Your task to perform on an android device: empty trash in google photos Image 0: 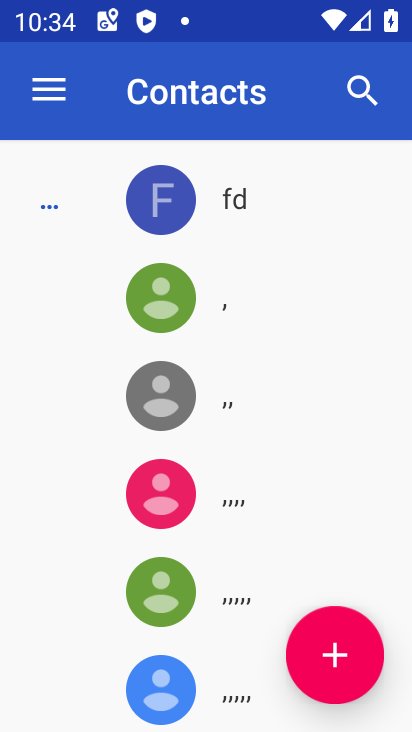
Step 0: press home button
Your task to perform on an android device: empty trash in google photos Image 1: 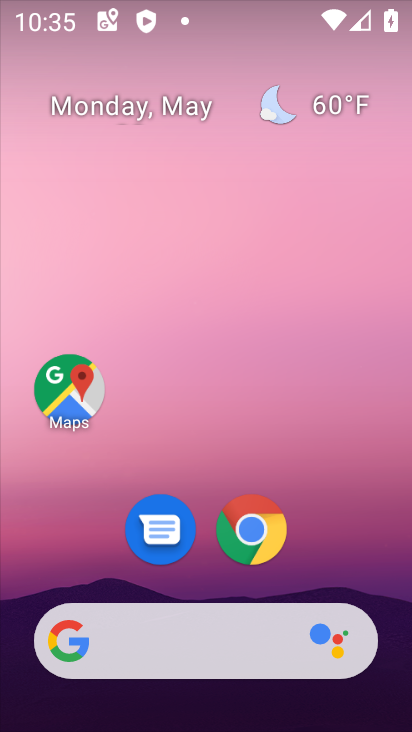
Step 1: drag from (328, 547) to (253, 5)
Your task to perform on an android device: empty trash in google photos Image 2: 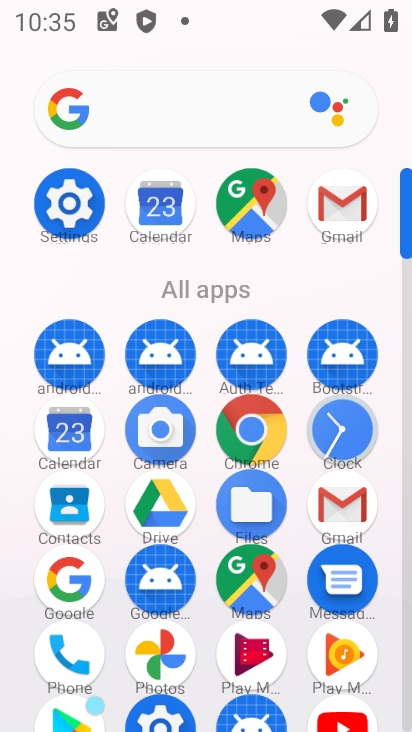
Step 2: click (154, 653)
Your task to perform on an android device: empty trash in google photos Image 3: 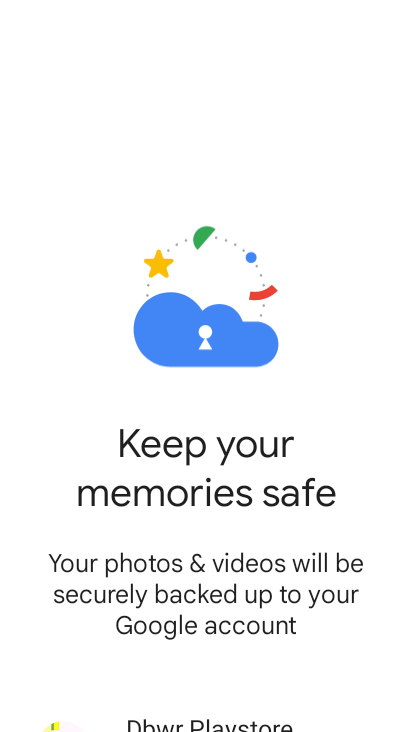
Step 3: drag from (238, 520) to (248, 181)
Your task to perform on an android device: empty trash in google photos Image 4: 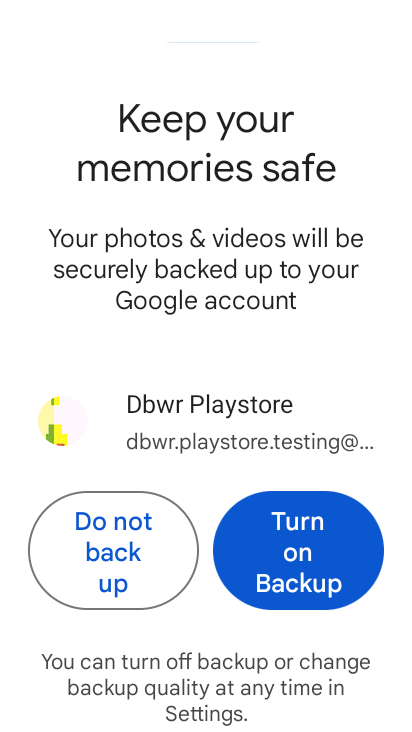
Step 4: click (105, 550)
Your task to perform on an android device: empty trash in google photos Image 5: 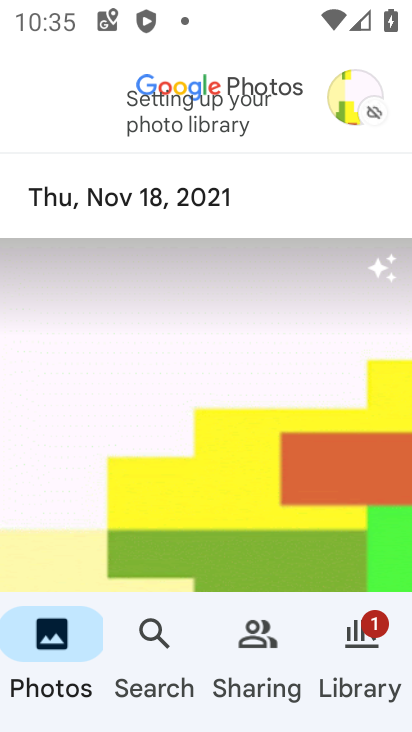
Step 5: click (362, 644)
Your task to perform on an android device: empty trash in google photos Image 6: 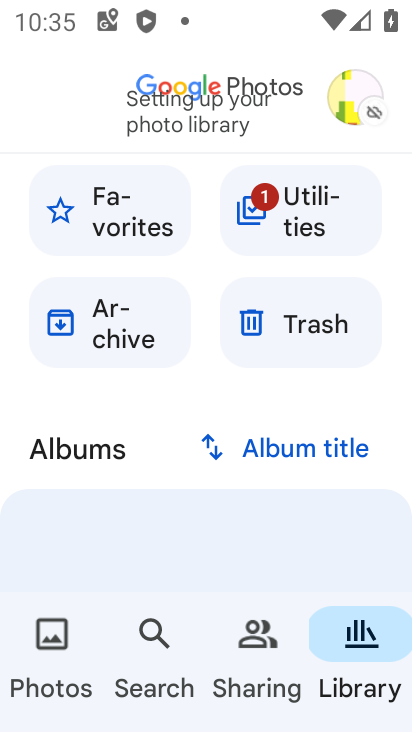
Step 6: click (294, 327)
Your task to perform on an android device: empty trash in google photos Image 7: 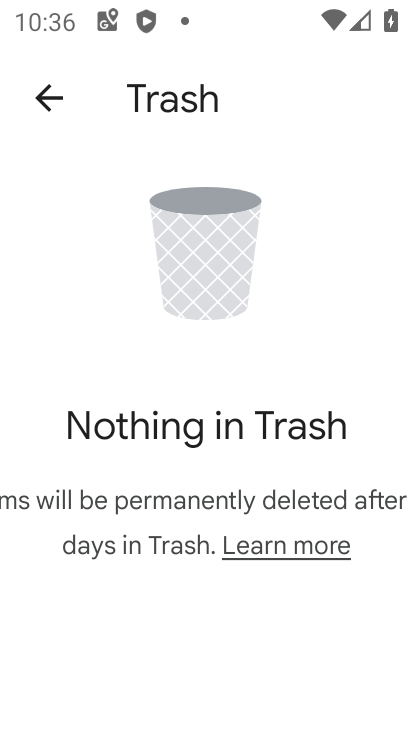
Step 7: click (47, 93)
Your task to perform on an android device: empty trash in google photos Image 8: 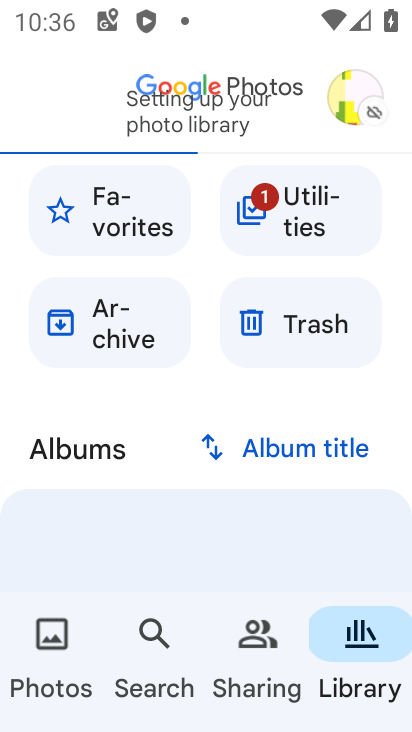
Step 8: click (279, 317)
Your task to perform on an android device: empty trash in google photos Image 9: 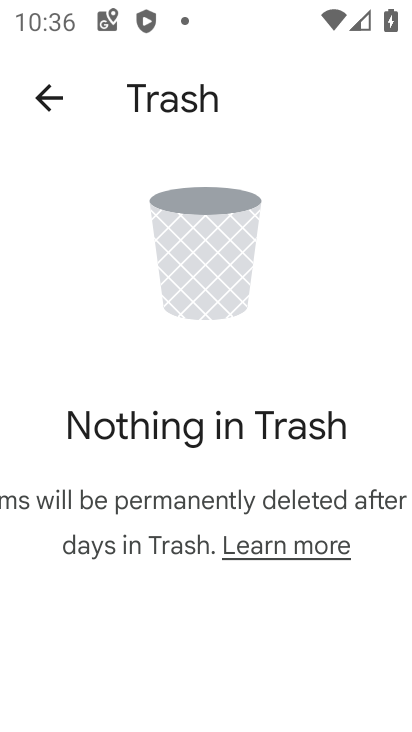
Step 9: task complete